Your task to perform on an android device: set the stopwatch Image 0: 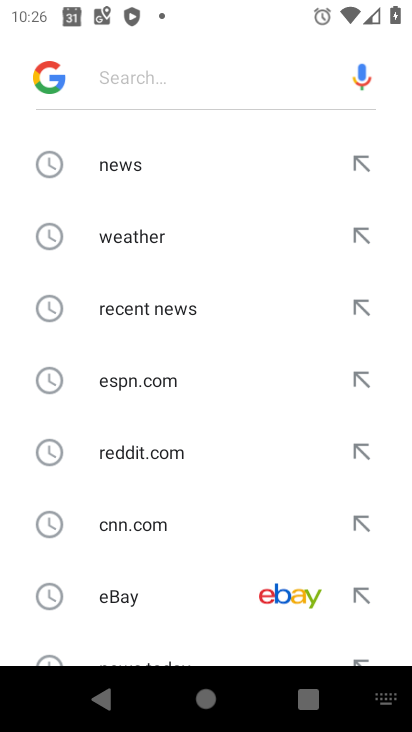
Step 0: press home button
Your task to perform on an android device: set the stopwatch Image 1: 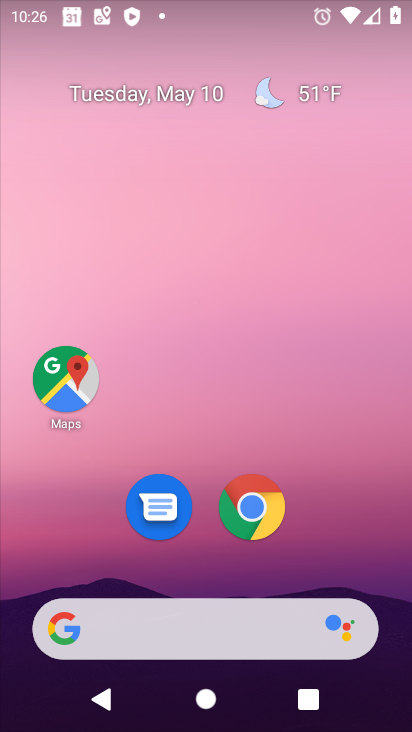
Step 1: drag from (235, 564) to (271, 159)
Your task to perform on an android device: set the stopwatch Image 2: 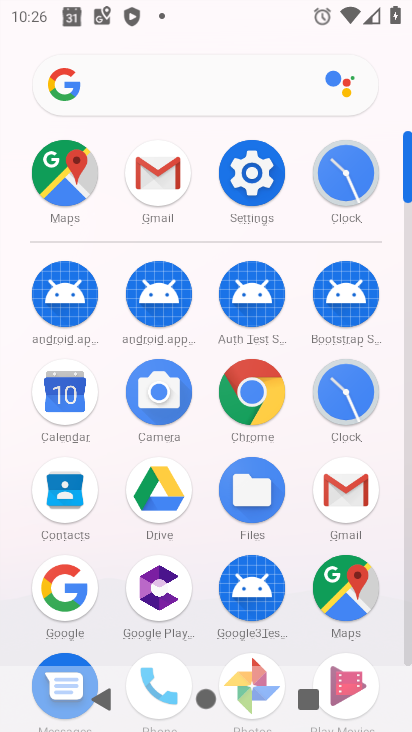
Step 2: click (276, 174)
Your task to perform on an android device: set the stopwatch Image 3: 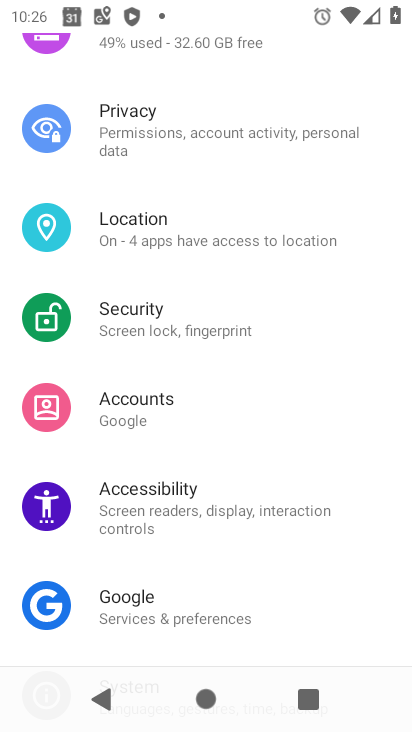
Step 3: press home button
Your task to perform on an android device: set the stopwatch Image 4: 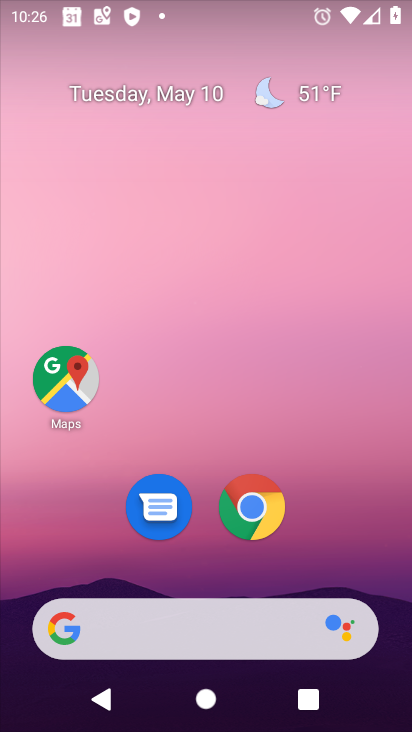
Step 4: drag from (209, 568) to (193, 129)
Your task to perform on an android device: set the stopwatch Image 5: 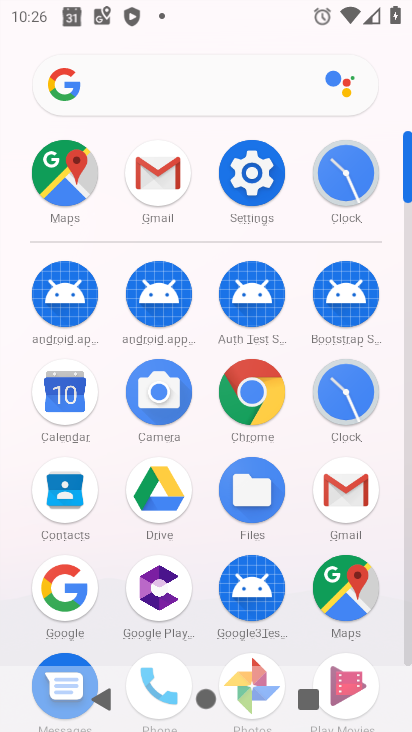
Step 5: click (348, 374)
Your task to perform on an android device: set the stopwatch Image 6: 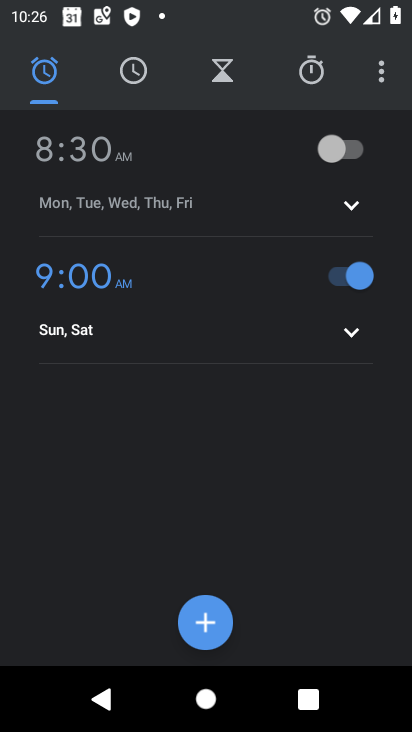
Step 6: click (336, 77)
Your task to perform on an android device: set the stopwatch Image 7: 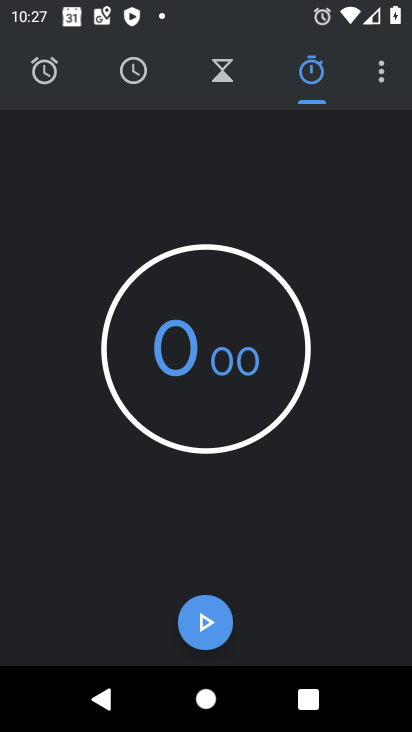
Step 7: click (218, 620)
Your task to perform on an android device: set the stopwatch Image 8: 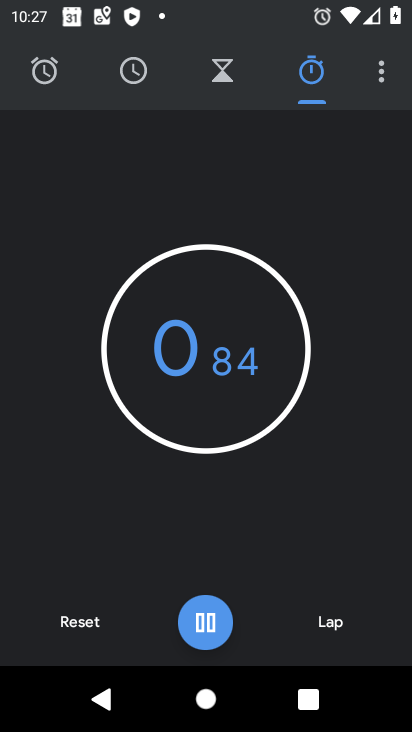
Step 8: task complete